Your task to perform on an android device: set the stopwatch Image 0: 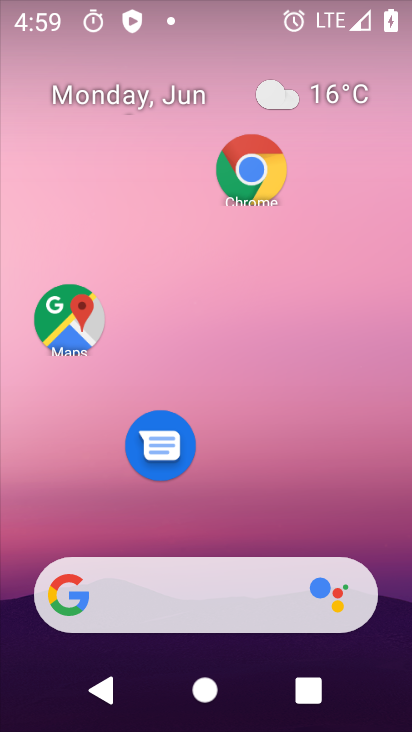
Step 0: drag from (224, 567) to (179, 174)
Your task to perform on an android device: set the stopwatch Image 1: 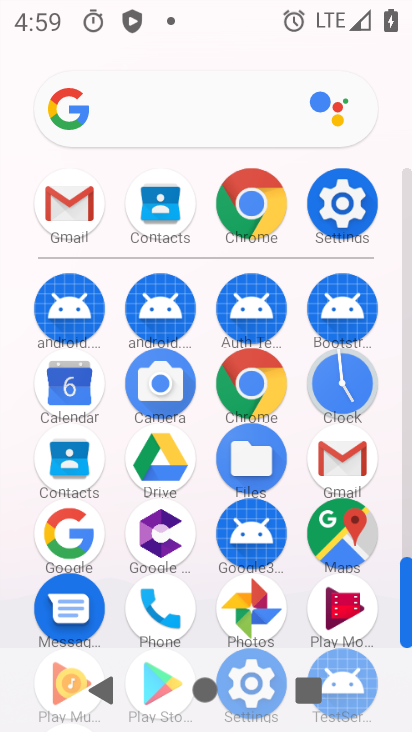
Step 1: click (346, 399)
Your task to perform on an android device: set the stopwatch Image 2: 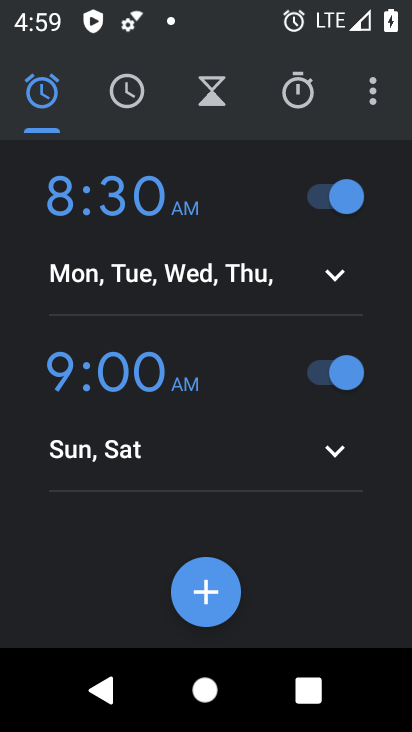
Step 2: click (301, 93)
Your task to perform on an android device: set the stopwatch Image 3: 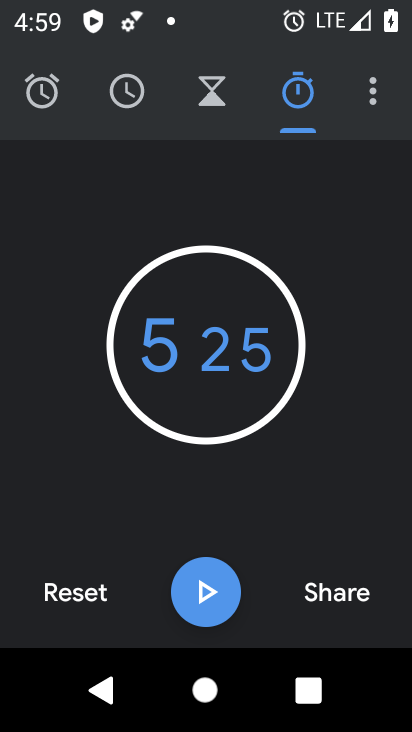
Step 3: click (77, 588)
Your task to perform on an android device: set the stopwatch Image 4: 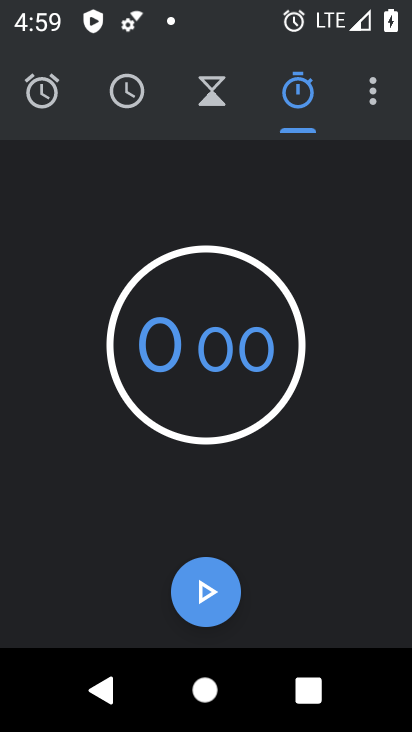
Step 4: click (212, 599)
Your task to perform on an android device: set the stopwatch Image 5: 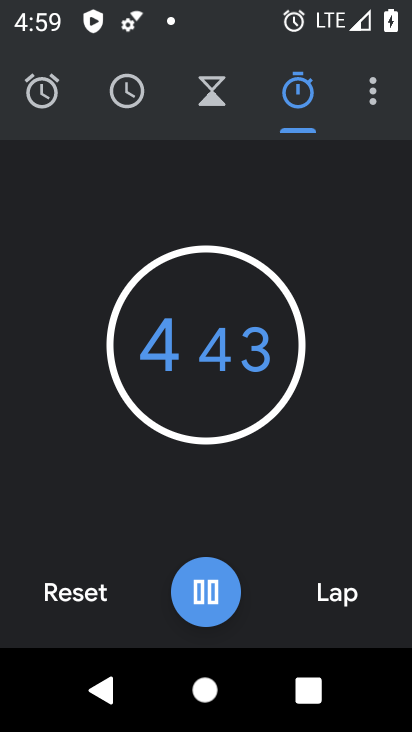
Step 5: click (207, 607)
Your task to perform on an android device: set the stopwatch Image 6: 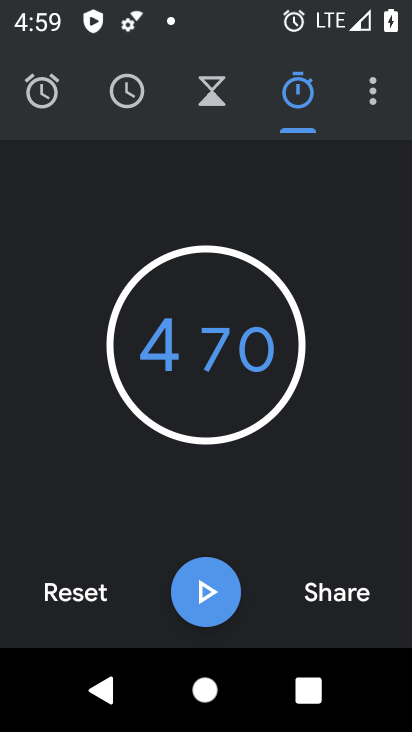
Step 6: task complete